Your task to perform on an android device: Open the web browser Image 0: 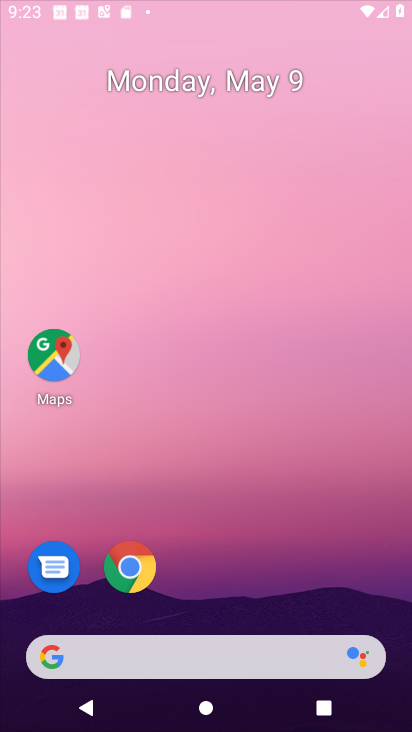
Step 0: drag from (146, 609) to (249, 307)
Your task to perform on an android device: Open the web browser Image 1: 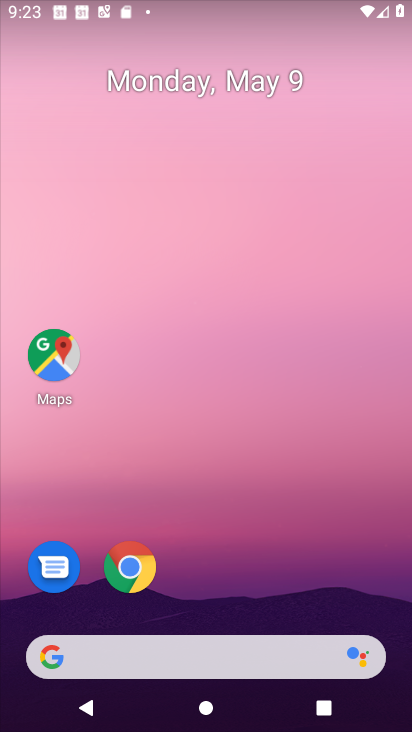
Step 1: drag from (253, 614) to (318, 194)
Your task to perform on an android device: Open the web browser Image 2: 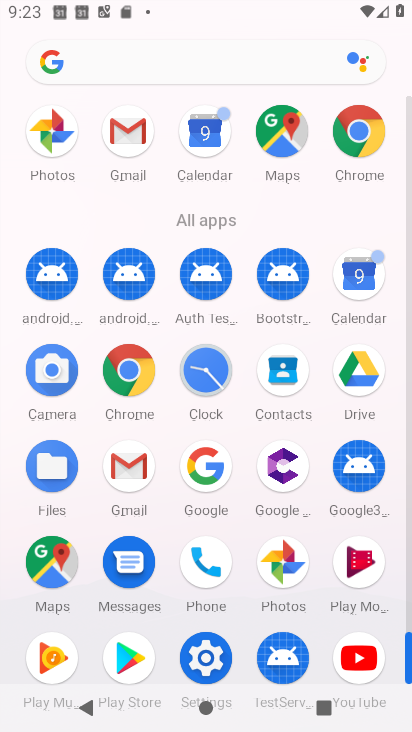
Step 2: drag from (253, 641) to (280, 224)
Your task to perform on an android device: Open the web browser Image 3: 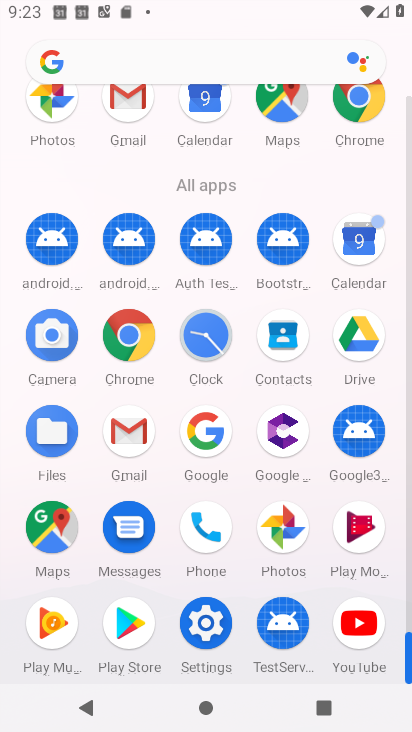
Step 3: click (131, 354)
Your task to perform on an android device: Open the web browser Image 4: 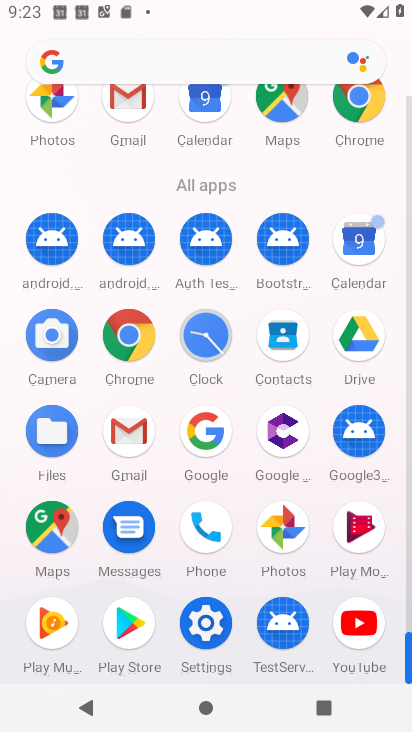
Step 4: click (131, 354)
Your task to perform on an android device: Open the web browser Image 5: 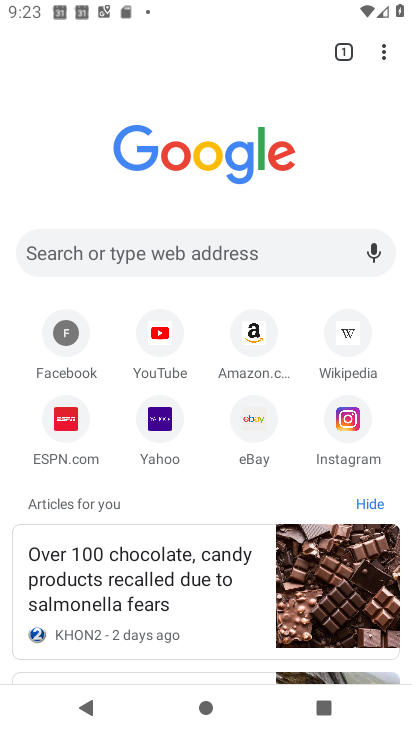
Step 5: task complete